Your task to perform on an android device: Go to battery settings Image 0: 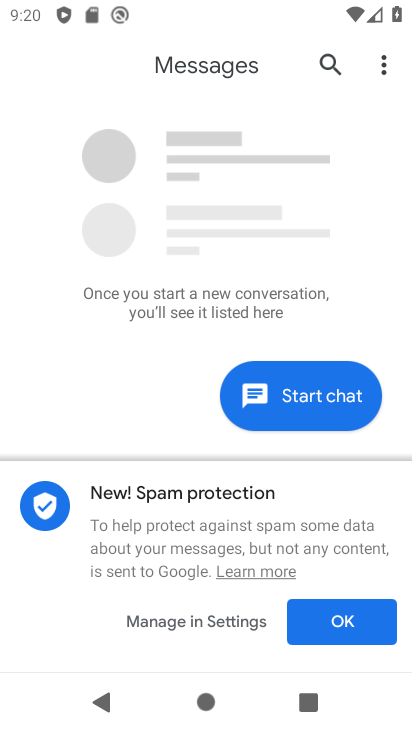
Step 0: task complete